Your task to perform on an android device: Open Google Image 0: 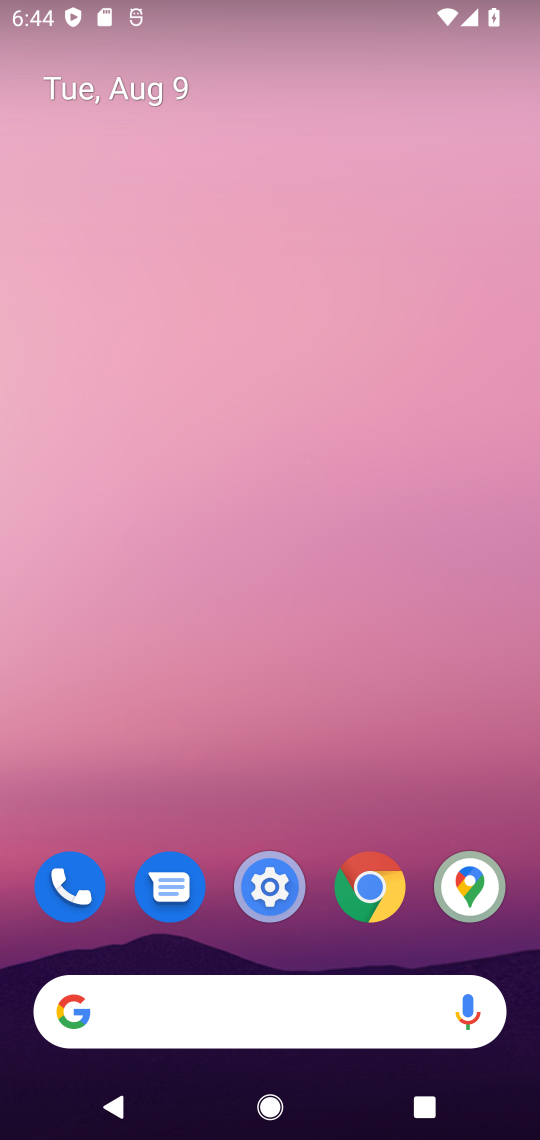
Step 0: click (287, 1016)
Your task to perform on an android device: Open Google Image 1: 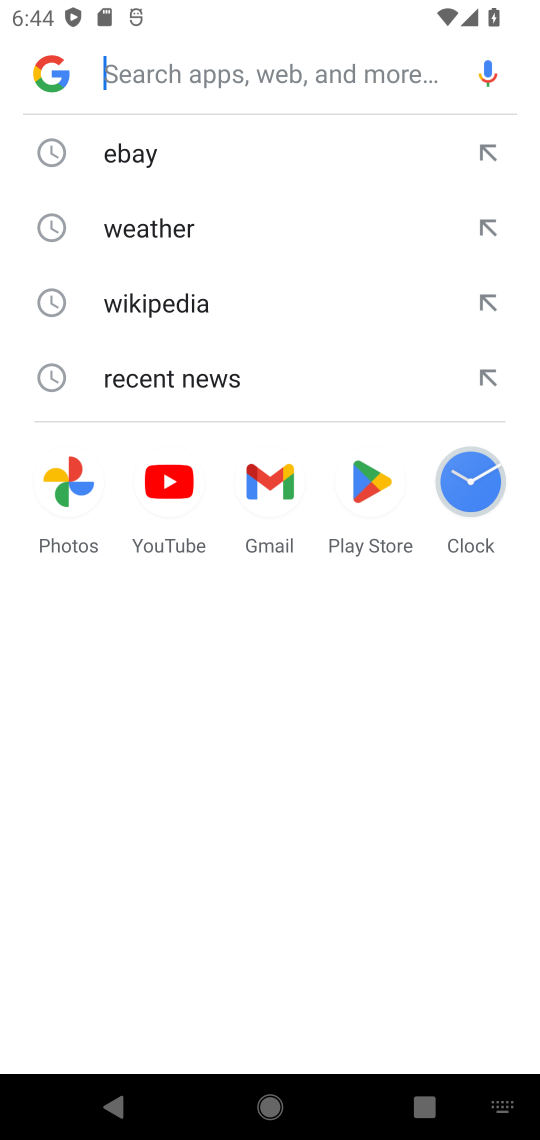
Step 1: click (59, 69)
Your task to perform on an android device: Open Google Image 2: 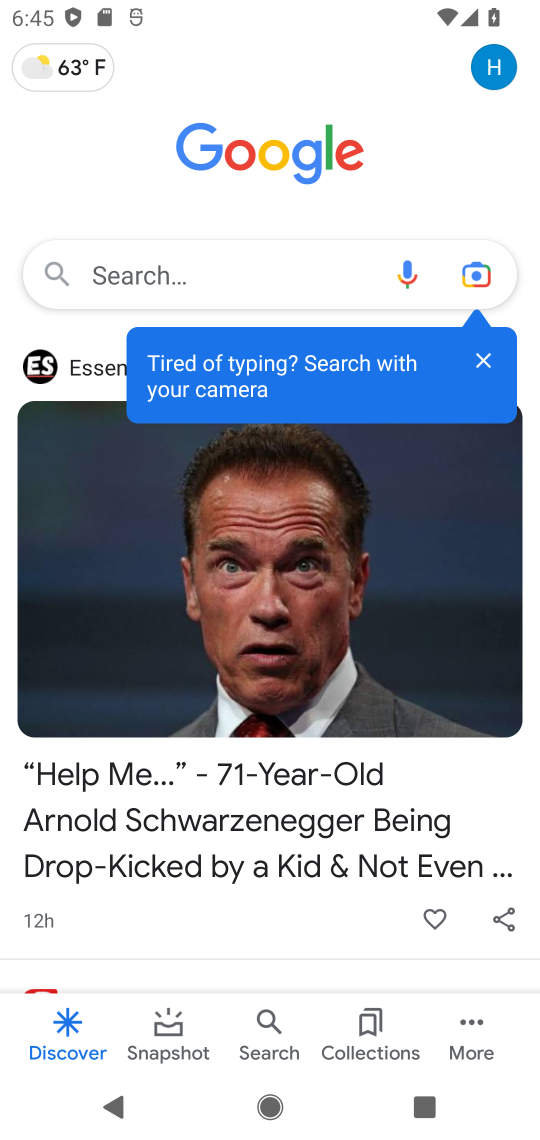
Step 2: click (434, 626)
Your task to perform on an android device: Open Google Image 3: 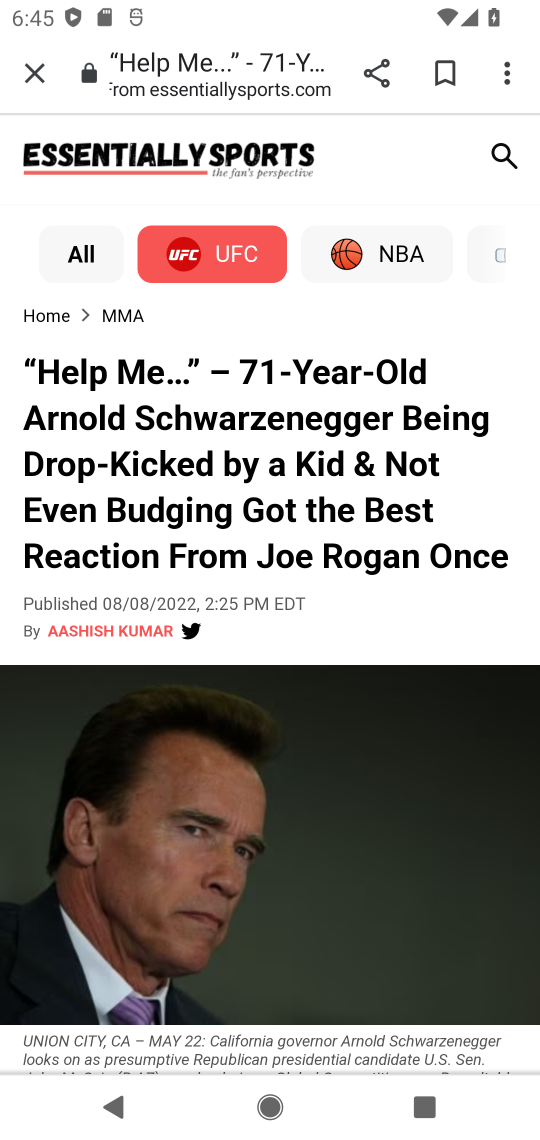
Step 3: task complete